Your task to perform on an android device: turn off notifications settings in the gmail app Image 0: 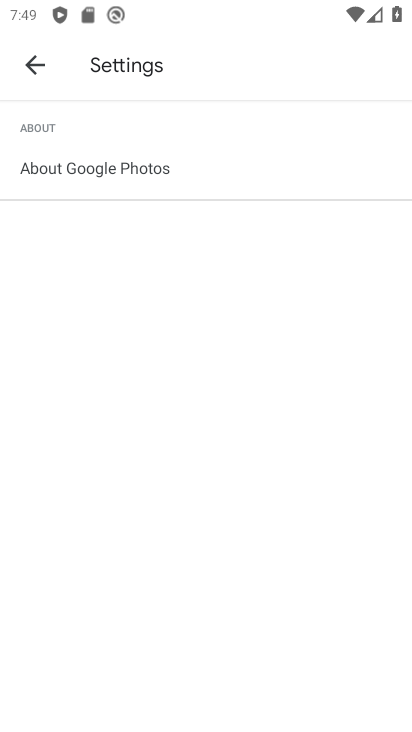
Step 0: press home button
Your task to perform on an android device: turn off notifications settings in the gmail app Image 1: 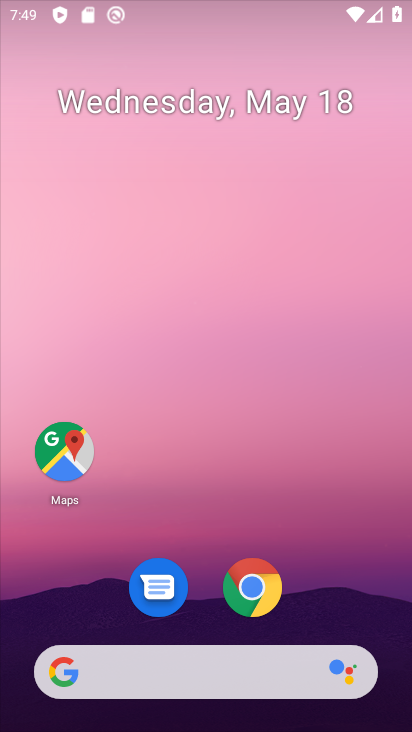
Step 1: drag from (271, 621) to (320, 82)
Your task to perform on an android device: turn off notifications settings in the gmail app Image 2: 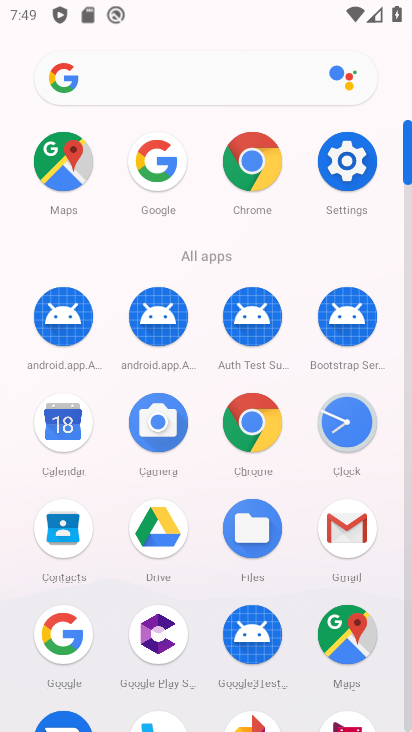
Step 2: click (345, 545)
Your task to perform on an android device: turn off notifications settings in the gmail app Image 3: 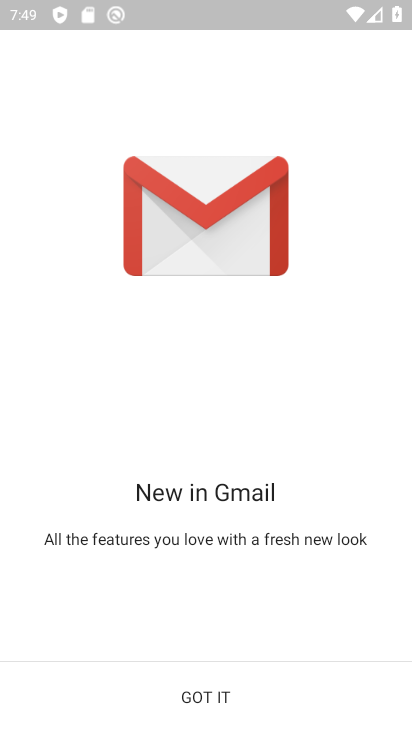
Step 3: click (232, 702)
Your task to perform on an android device: turn off notifications settings in the gmail app Image 4: 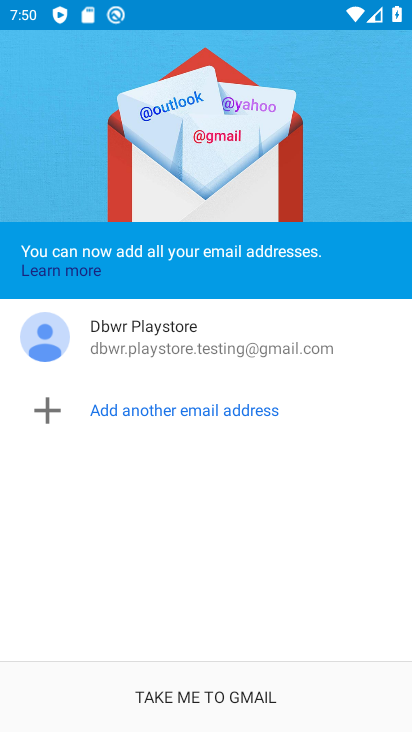
Step 4: click (231, 702)
Your task to perform on an android device: turn off notifications settings in the gmail app Image 5: 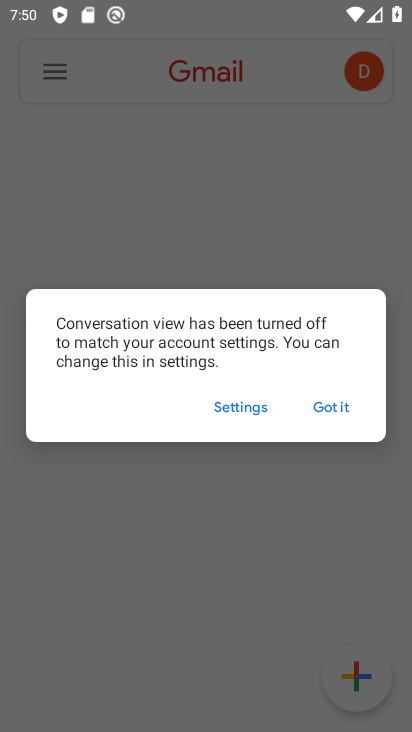
Step 5: click (325, 417)
Your task to perform on an android device: turn off notifications settings in the gmail app Image 6: 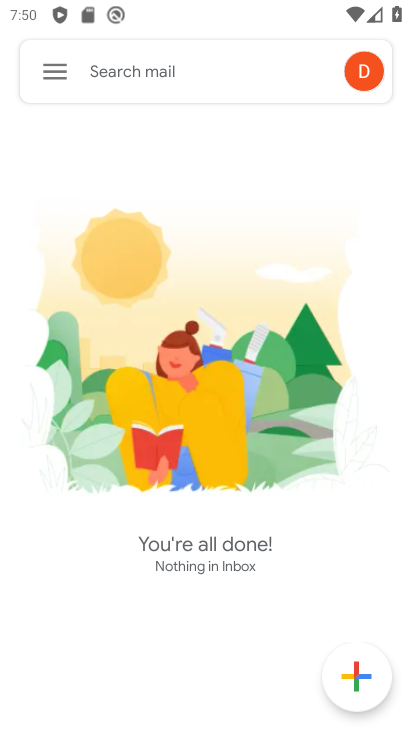
Step 6: click (53, 86)
Your task to perform on an android device: turn off notifications settings in the gmail app Image 7: 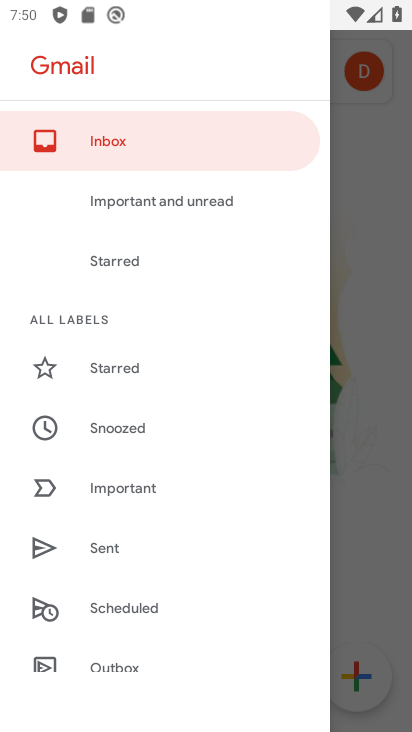
Step 7: drag from (135, 540) to (203, 214)
Your task to perform on an android device: turn off notifications settings in the gmail app Image 8: 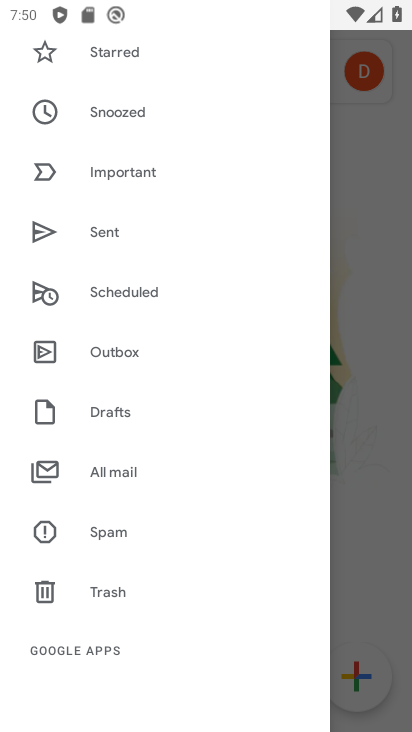
Step 8: drag from (124, 574) to (199, 195)
Your task to perform on an android device: turn off notifications settings in the gmail app Image 9: 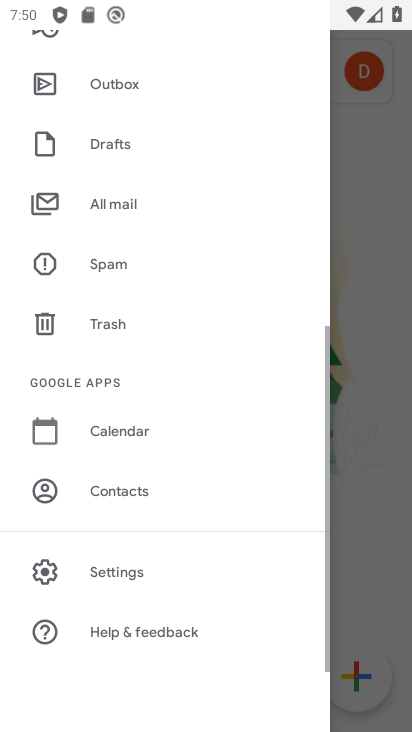
Step 9: click (141, 568)
Your task to perform on an android device: turn off notifications settings in the gmail app Image 10: 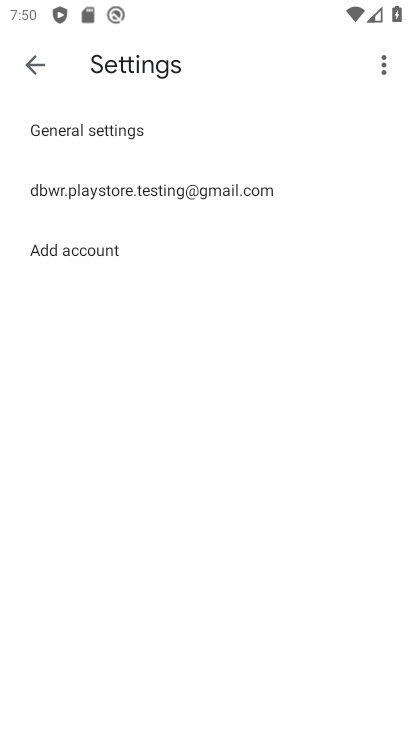
Step 10: click (141, 130)
Your task to perform on an android device: turn off notifications settings in the gmail app Image 11: 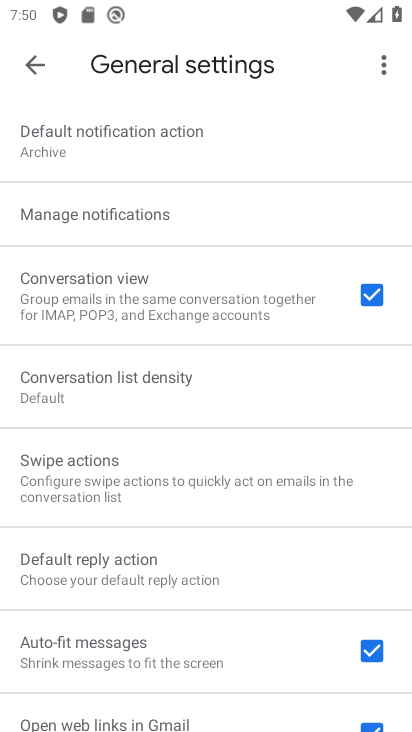
Step 11: click (173, 223)
Your task to perform on an android device: turn off notifications settings in the gmail app Image 12: 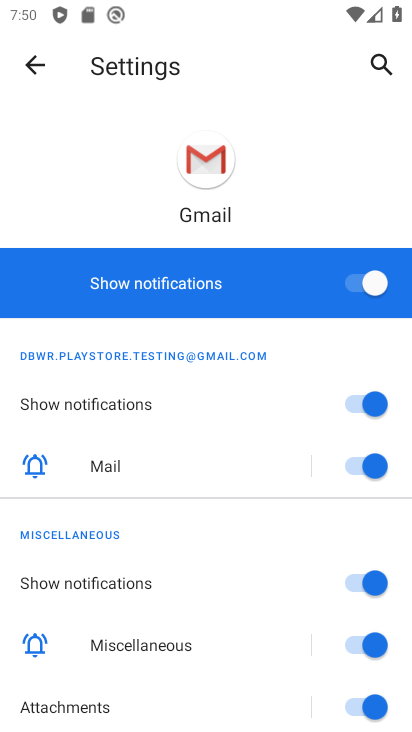
Step 12: click (348, 295)
Your task to perform on an android device: turn off notifications settings in the gmail app Image 13: 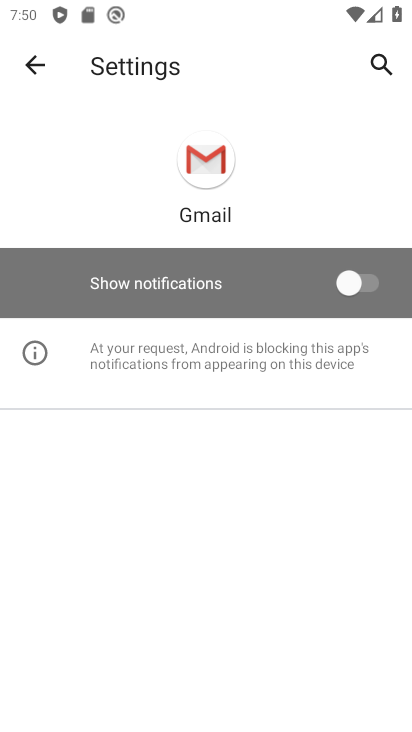
Step 13: task complete